Your task to perform on an android device: View the shopping cart on newegg. Search for "razer huntsman" on newegg, select the first entry, add it to the cart, then select checkout. Image 0: 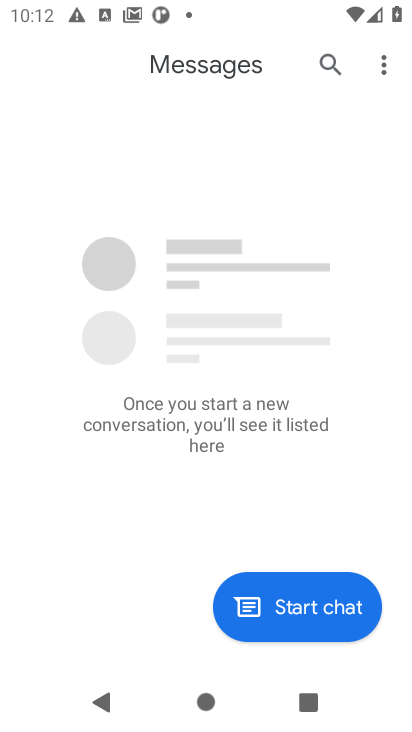
Step 0: press home button
Your task to perform on an android device: View the shopping cart on newegg. Search for "razer huntsman" on newegg, select the first entry, add it to the cart, then select checkout. Image 1: 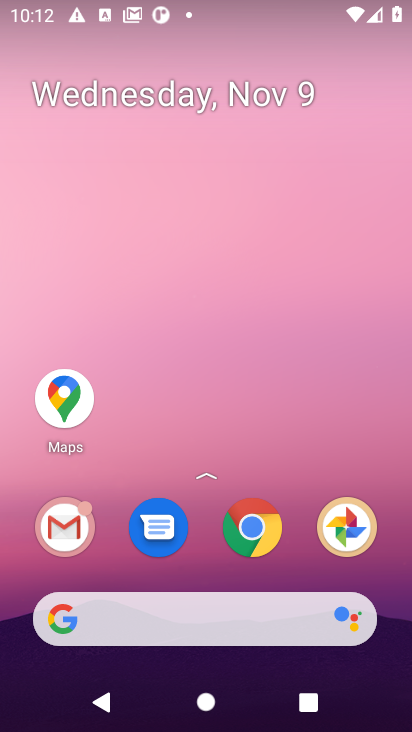
Step 1: click (264, 525)
Your task to perform on an android device: View the shopping cart on newegg. Search for "razer huntsman" on newegg, select the first entry, add it to the cart, then select checkout. Image 2: 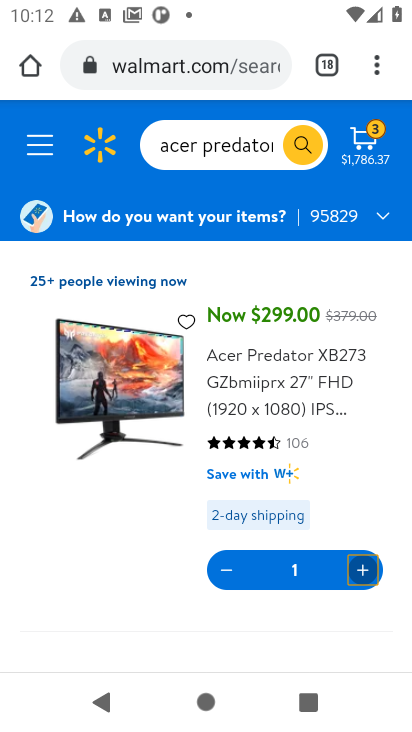
Step 2: click (193, 67)
Your task to perform on an android device: View the shopping cart on newegg. Search for "razer huntsman" on newegg, select the first entry, add it to the cart, then select checkout. Image 3: 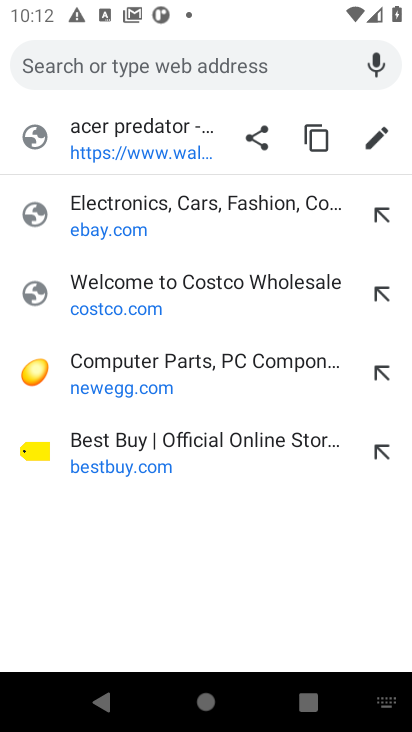
Step 3: click (97, 379)
Your task to perform on an android device: View the shopping cart on newegg. Search for "razer huntsman" on newegg, select the first entry, add it to the cart, then select checkout. Image 4: 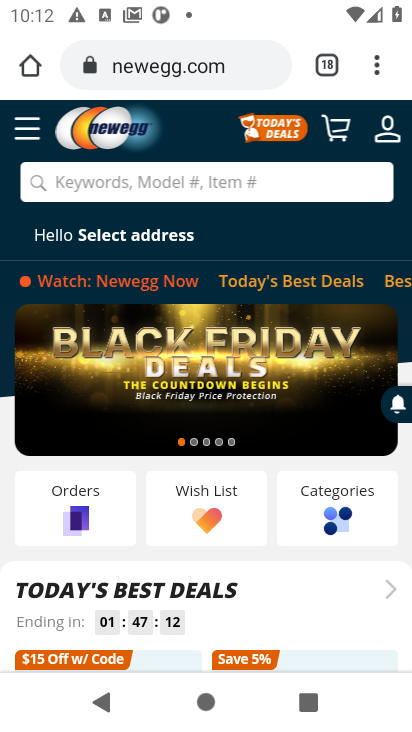
Step 4: click (332, 128)
Your task to perform on an android device: View the shopping cart on newegg. Search for "razer huntsman" on newegg, select the first entry, add it to the cart, then select checkout. Image 5: 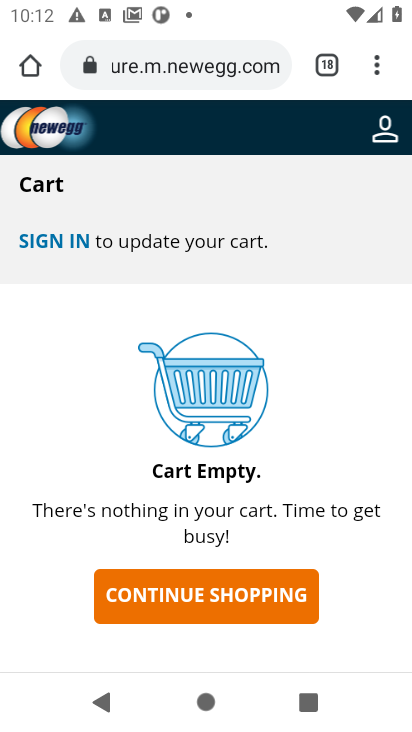
Step 5: click (204, 593)
Your task to perform on an android device: View the shopping cart on newegg. Search for "razer huntsman" on newegg, select the first entry, add it to the cart, then select checkout. Image 6: 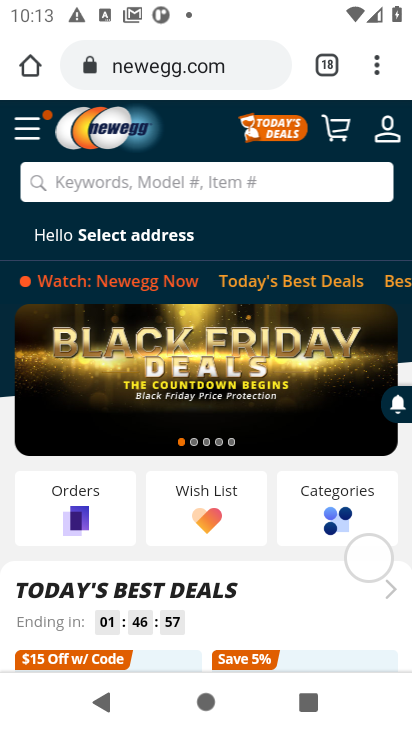
Step 6: click (192, 185)
Your task to perform on an android device: View the shopping cart on newegg. Search for "razer huntsman" on newegg, select the first entry, add it to the cart, then select checkout. Image 7: 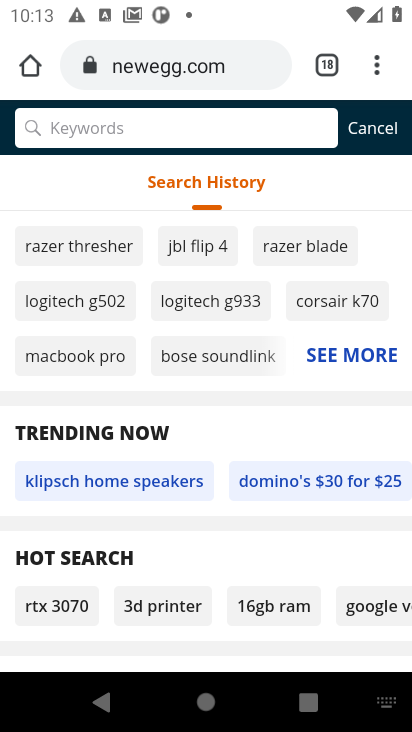
Step 7: type "razer huntsman"
Your task to perform on an android device: View the shopping cart on newegg. Search for "razer huntsman" on newegg, select the first entry, add it to the cart, then select checkout. Image 8: 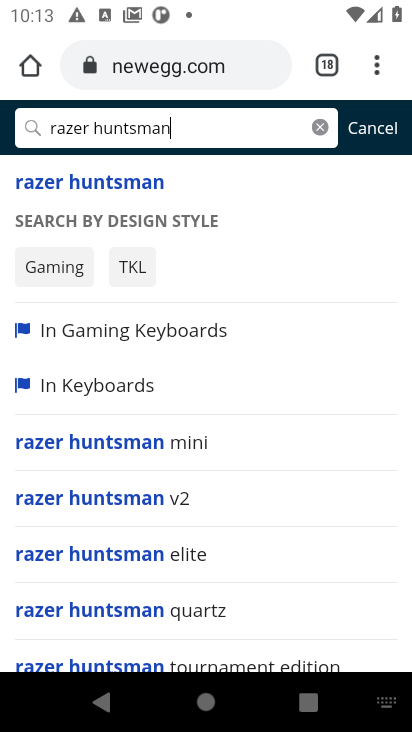
Step 8: click (75, 185)
Your task to perform on an android device: View the shopping cart on newegg. Search for "razer huntsman" on newegg, select the first entry, add it to the cart, then select checkout. Image 9: 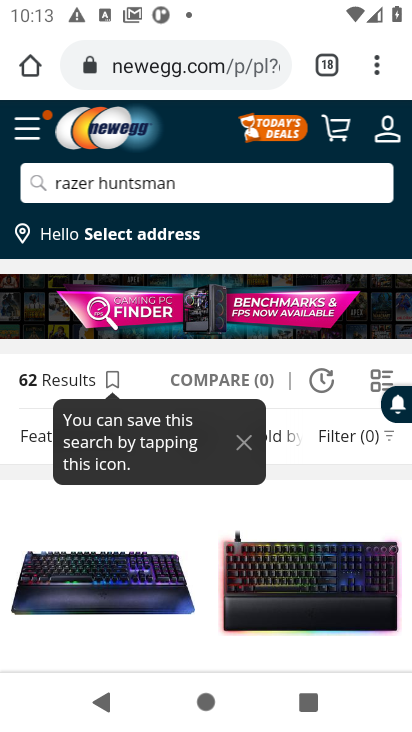
Step 9: drag from (148, 576) to (151, 398)
Your task to perform on an android device: View the shopping cart on newegg. Search for "razer huntsman" on newegg, select the first entry, add it to the cart, then select checkout. Image 10: 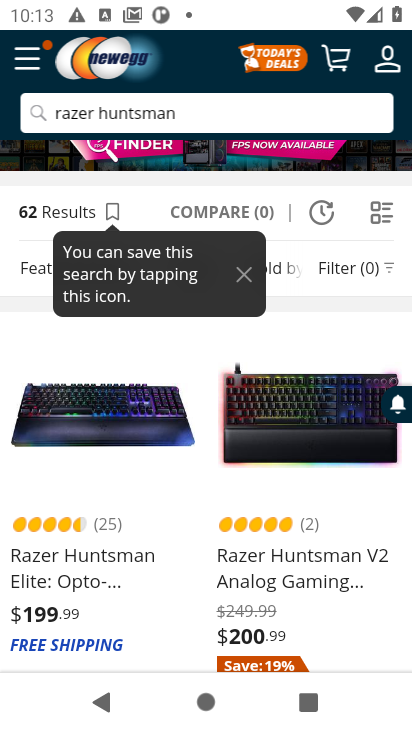
Step 10: click (95, 433)
Your task to perform on an android device: View the shopping cart on newegg. Search for "razer huntsman" on newegg, select the first entry, add it to the cart, then select checkout. Image 11: 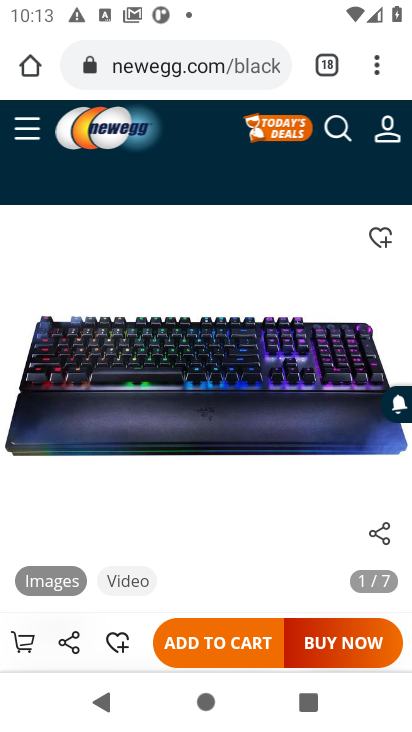
Step 11: click (217, 652)
Your task to perform on an android device: View the shopping cart on newegg. Search for "razer huntsman" on newegg, select the first entry, add it to the cart, then select checkout. Image 12: 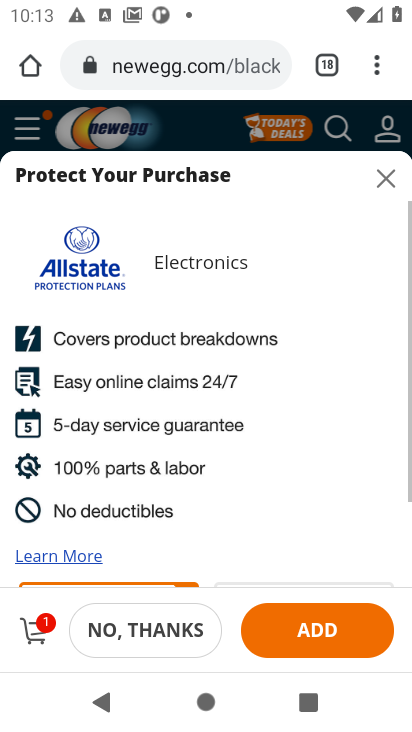
Step 12: click (31, 631)
Your task to perform on an android device: View the shopping cart on newegg. Search for "razer huntsman" on newegg, select the first entry, add it to the cart, then select checkout. Image 13: 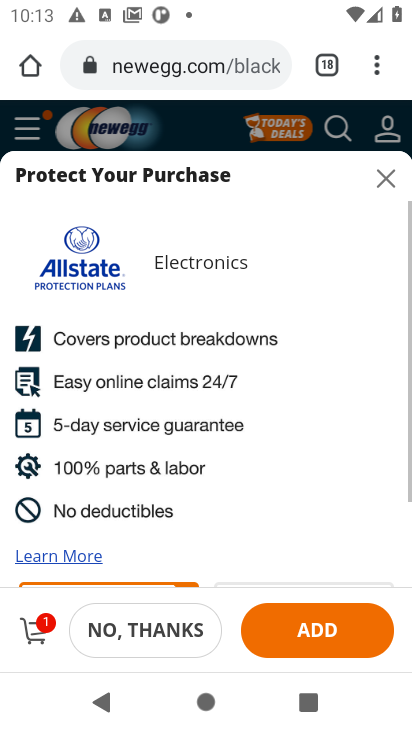
Step 13: click (31, 631)
Your task to perform on an android device: View the shopping cart on newegg. Search for "razer huntsman" on newegg, select the first entry, add it to the cart, then select checkout. Image 14: 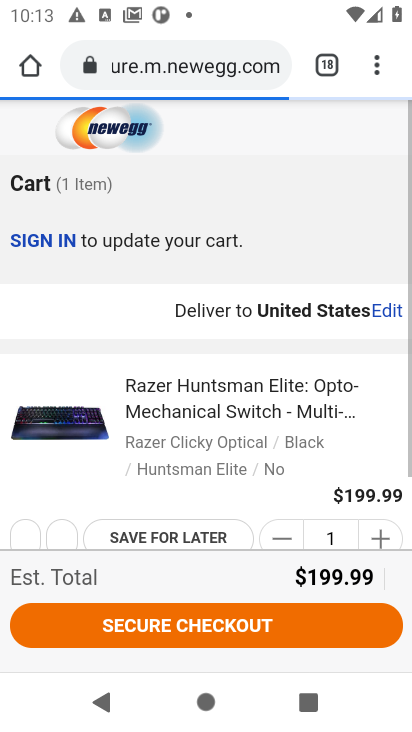
Step 14: click (141, 627)
Your task to perform on an android device: View the shopping cart on newegg. Search for "razer huntsman" on newegg, select the first entry, add it to the cart, then select checkout. Image 15: 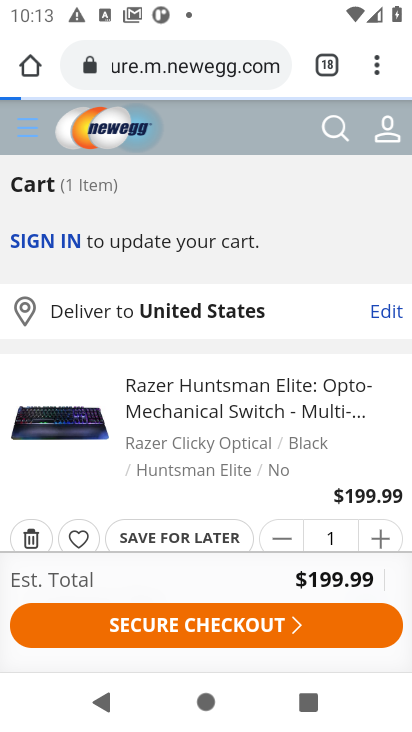
Step 15: click (197, 629)
Your task to perform on an android device: View the shopping cart on newegg. Search for "razer huntsman" on newegg, select the first entry, add it to the cart, then select checkout. Image 16: 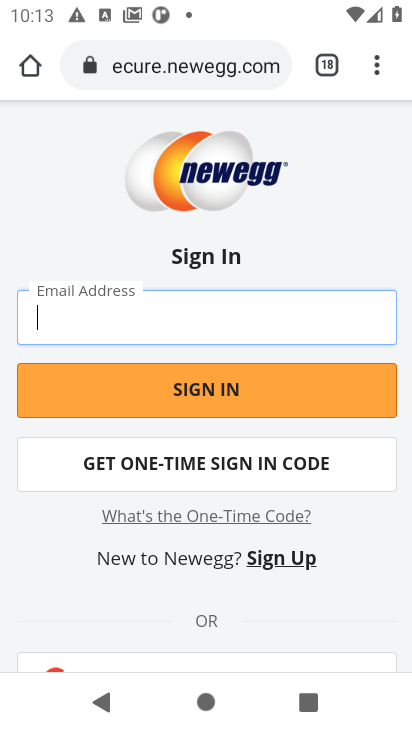
Step 16: task complete